Your task to perform on an android device: Play the last video I watched on Youtube Image 0: 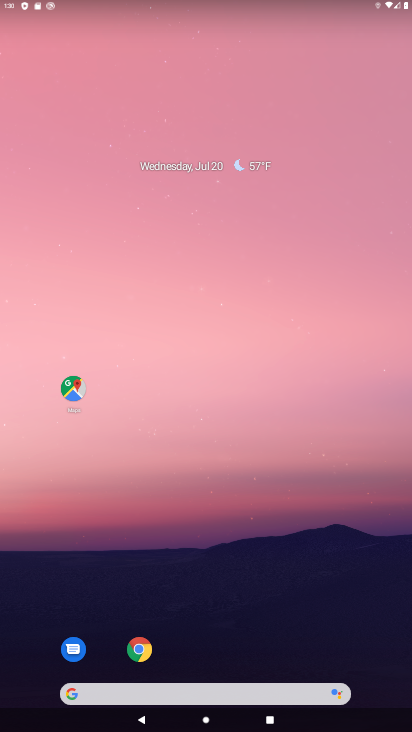
Step 0: drag from (225, 640) to (249, 97)
Your task to perform on an android device: Play the last video I watched on Youtube Image 1: 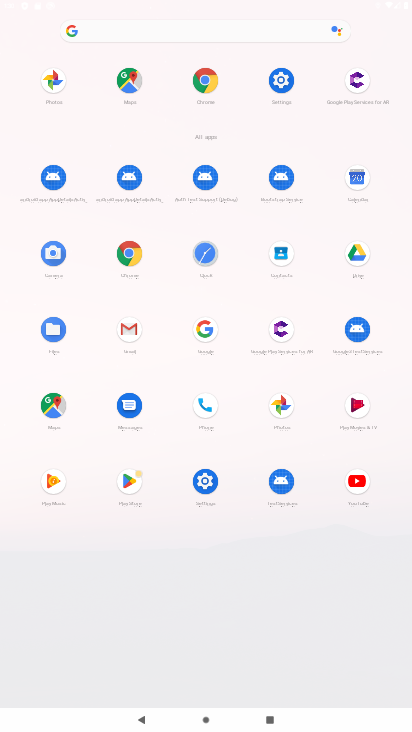
Step 1: click (354, 481)
Your task to perform on an android device: Play the last video I watched on Youtube Image 2: 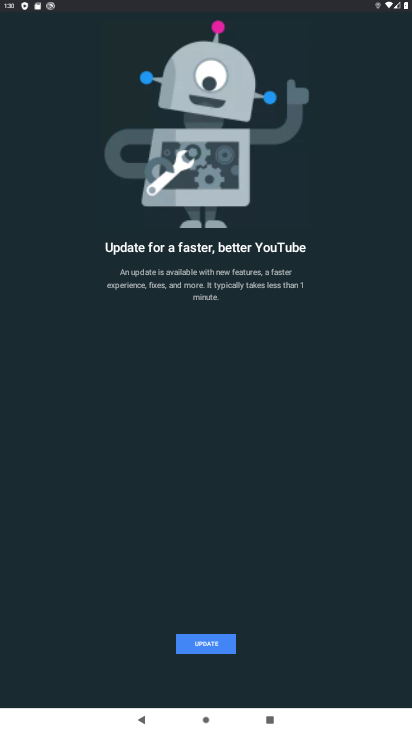
Step 2: click (218, 632)
Your task to perform on an android device: Play the last video I watched on Youtube Image 3: 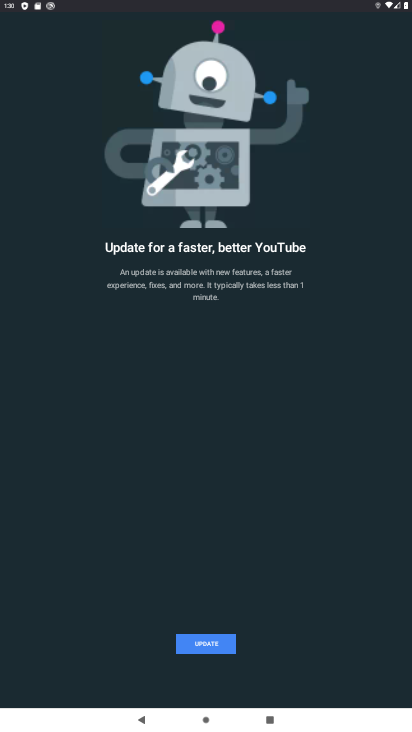
Step 3: click (218, 632)
Your task to perform on an android device: Play the last video I watched on Youtube Image 4: 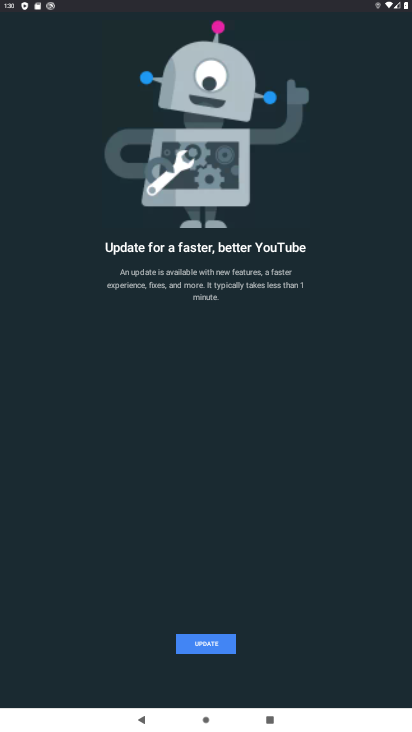
Step 4: click (209, 642)
Your task to perform on an android device: Play the last video I watched on Youtube Image 5: 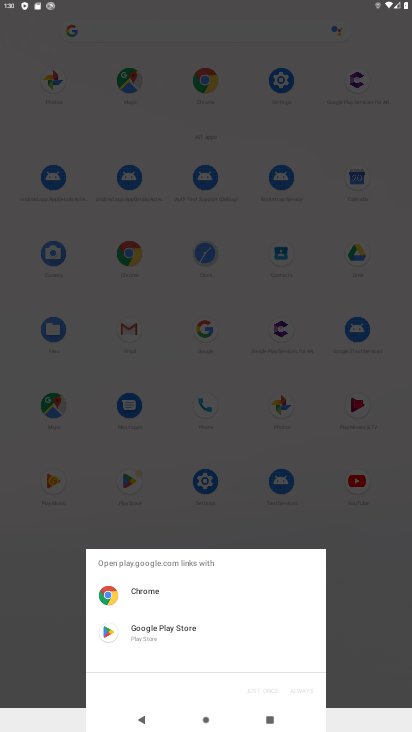
Step 5: click (191, 637)
Your task to perform on an android device: Play the last video I watched on Youtube Image 6: 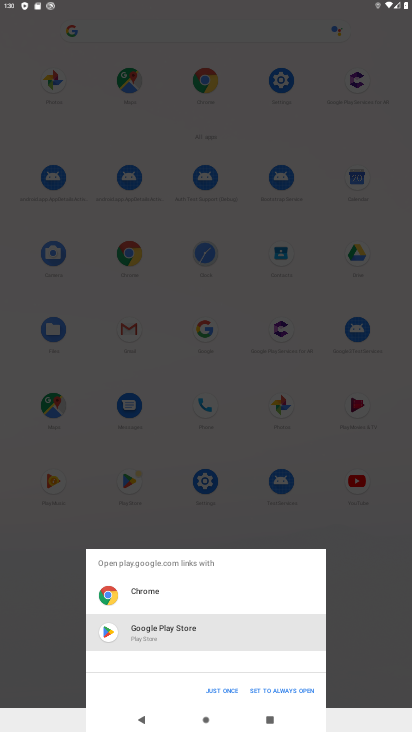
Step 6: click (228, 691)
Your task to perform on an android device: Play the last video I watched on Youtube Image 7: 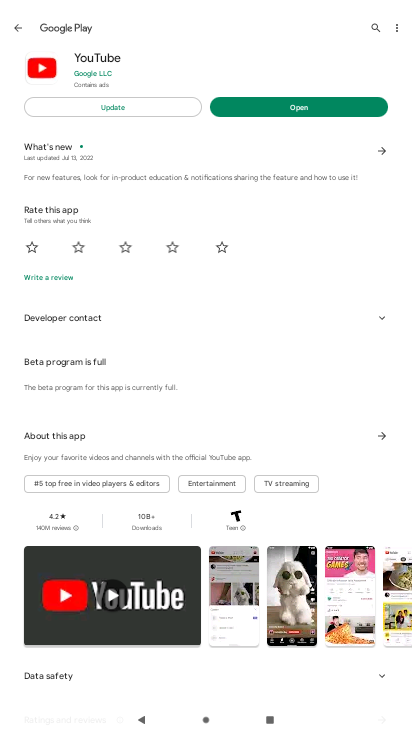
Step 7: click (143, 95)
Your task to perform on an android device: Play the last video I watched on Youtube Image 8: 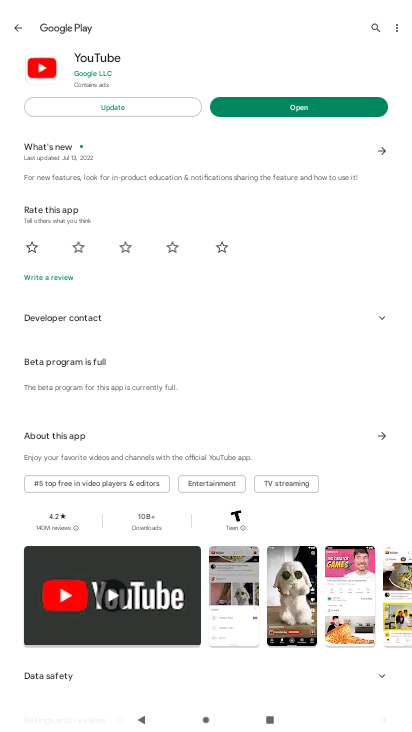
Step 8: click (142, 113)
Your task to perform on an android device: Play the last video I watched on Youtube Image 9: 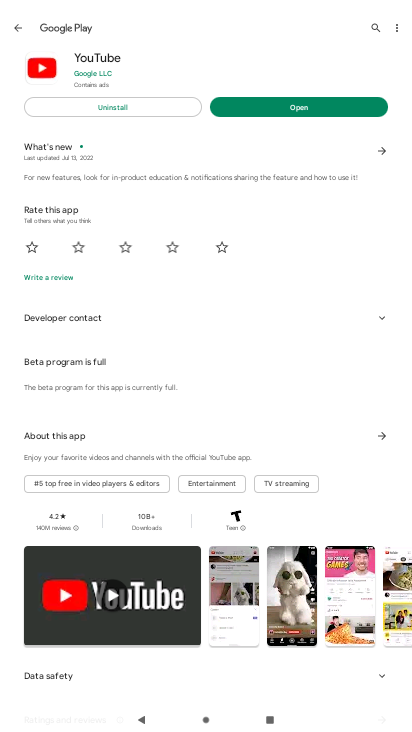
Step 9: click (377, 110)
Your task to perform on an android device: Play the last video I watched on Youtube Image 10: 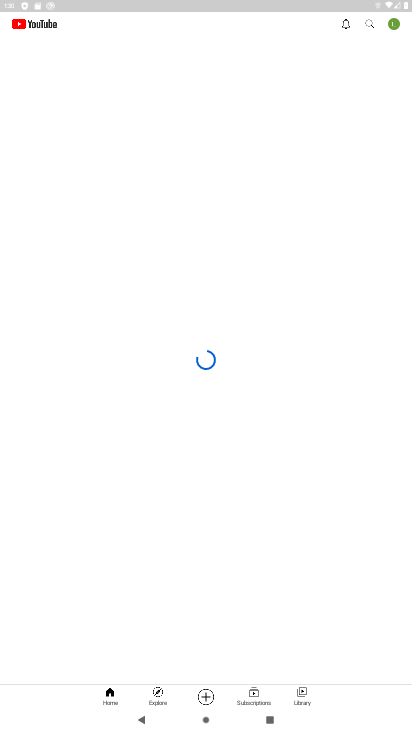
Step 10: click (302, 698)
Your task to perform on an android device: Play the last video I watched on Youtube Image 11: 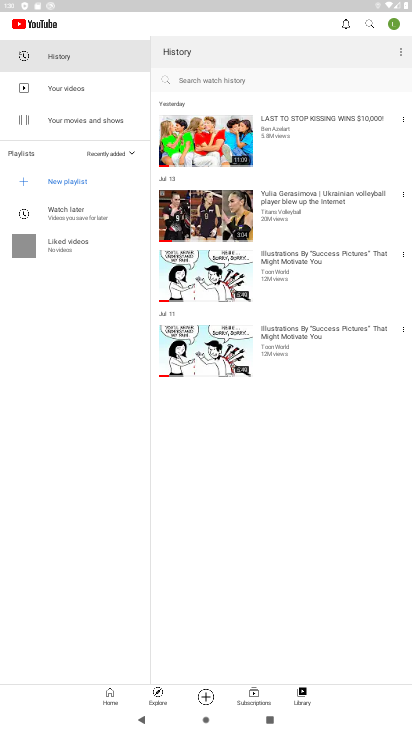
Step 11: task complete